Your task to perform on an android device: change your default location settings in chrome Image 0: 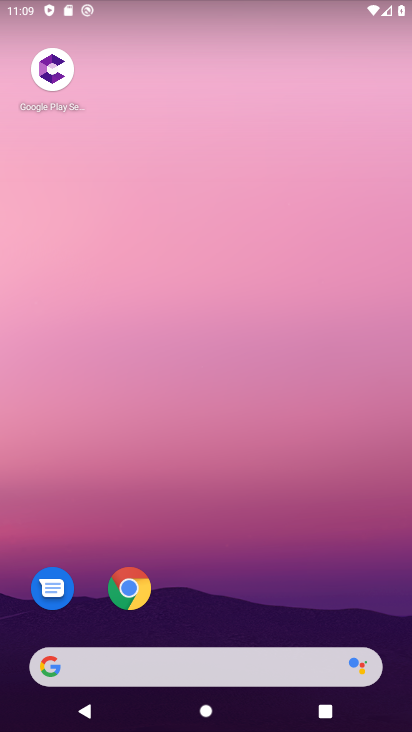
Step 0: click (130, 580)
Your task to perform on an android device: change your default location settings in chrome Image 1: 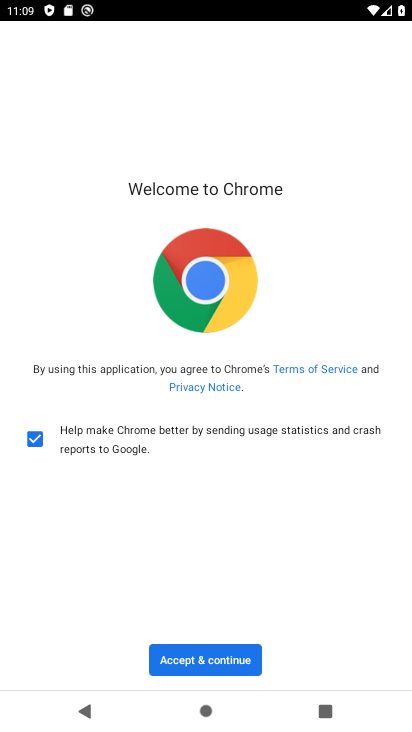
Step 1: click (174, 661)
Your task to perform on an android device: change your default location settings in chrome Image 2: 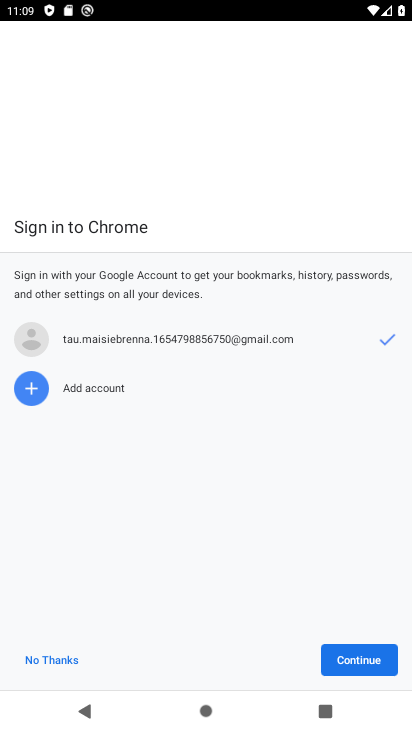
Step 2: click (389, 654)
Your task to perform on an android device: change your default location settings in chrome Image 3: 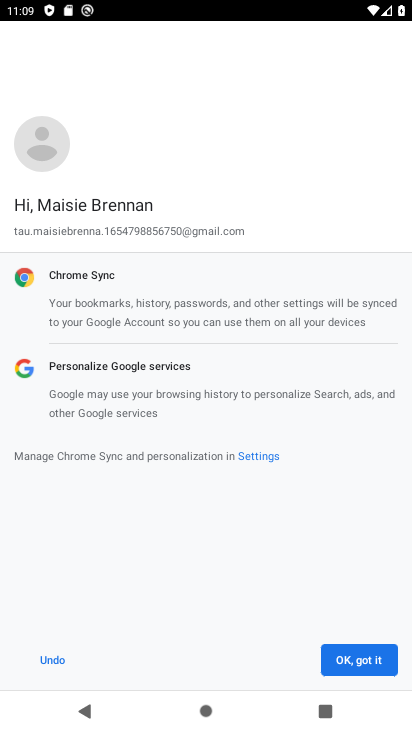
Step 3: click (374, 661)
Your task to perform on an android device: change your default location settings in chrome Image 4: 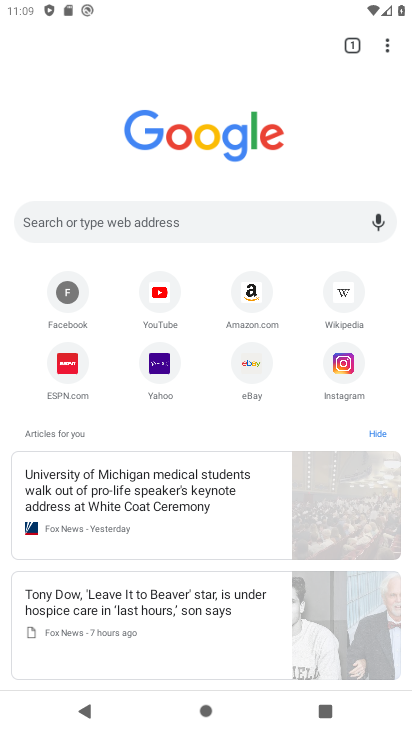
Step 4: click (381, 42)
Your task to perform on an android device: change your default location settings in chrome Image 5: 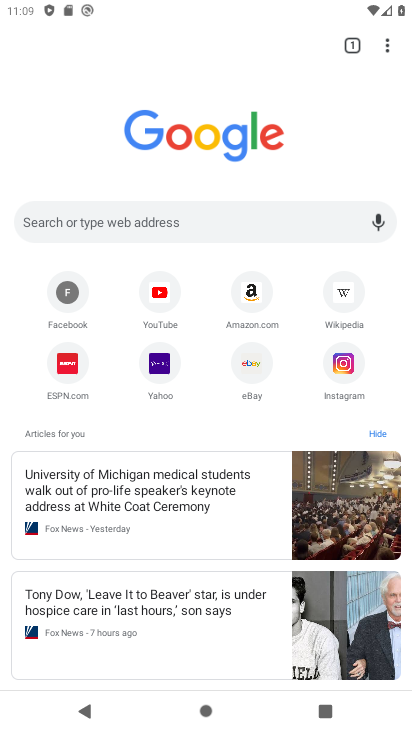
Step 5: click (389, 41)
Your task to perform on an android device: change your default location settings in chrome Image 6: 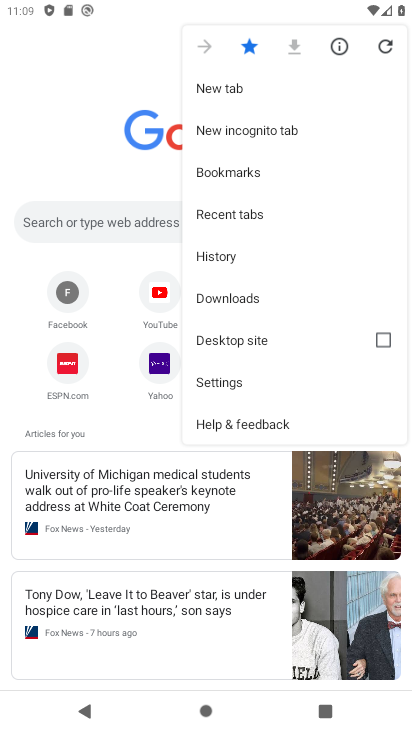
Step 6: click (223, 376)
Your task to perform on an android device: change your default location settings in chrome Image 7: 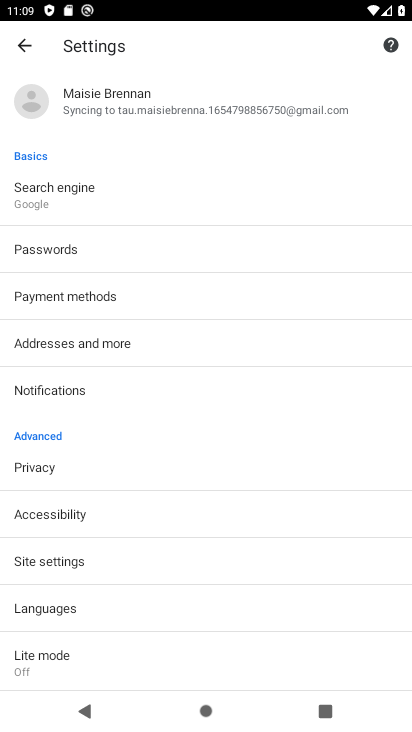
Step 7: drag from (197, 564) to (241, 219)
Your task to perform on an android device: change your default location settings in chrome Image 8: 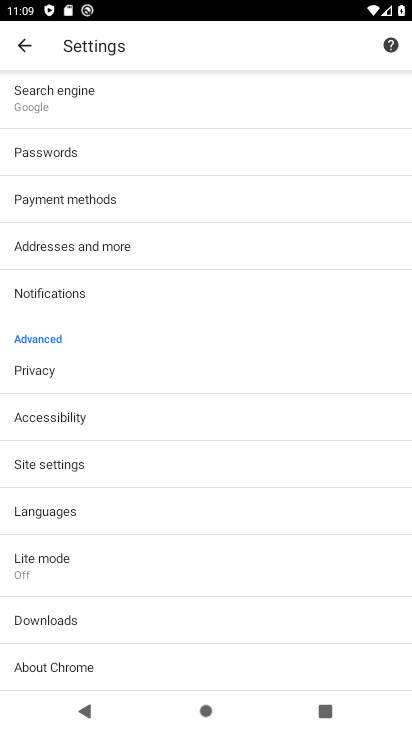
Step 8: click (62, 458)
Your task to perform on an android device: change your default location settings in chrome Image 9: 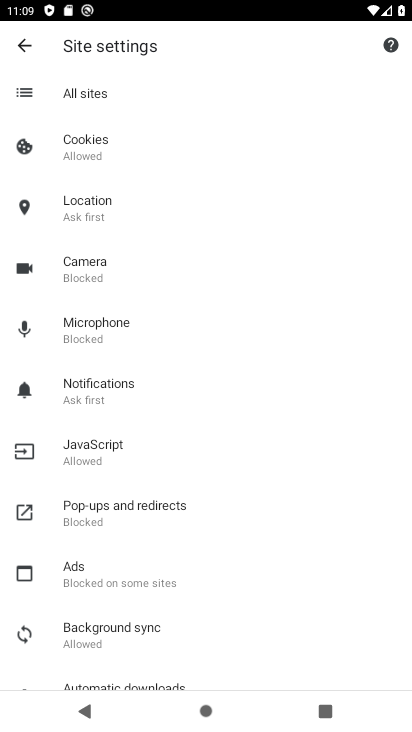
Step 9: click (100, 200)
Your task to perform on an android device: change your default location settings in chrome Image 10: 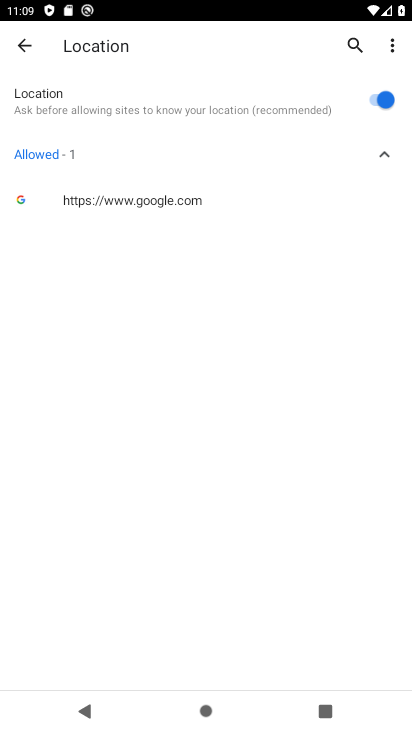
Step 10: task complete